Your task to perform on an android device: Open settings Image 0: 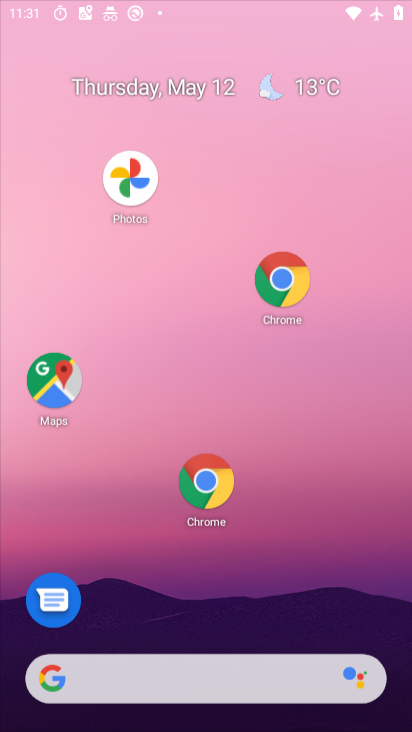
Step 0: drag from (326, 667) to (134, 214)
Your task to perform on an android device: Open settings Image 1: 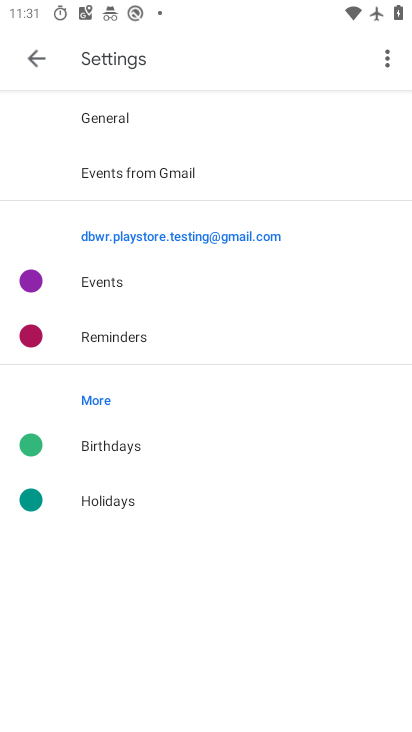
Step 1: task complete